Your task to perform on an android device: Open ESPN.com Image 0: 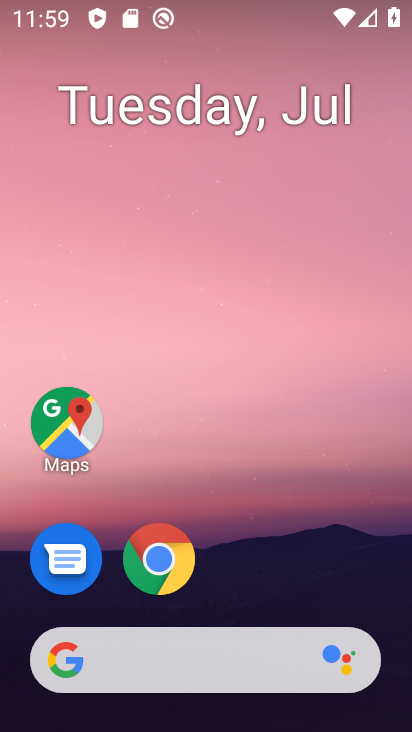
Step 0: click (163, 542)
Your task to perform on an android device: Open ESPN.com Image 1: 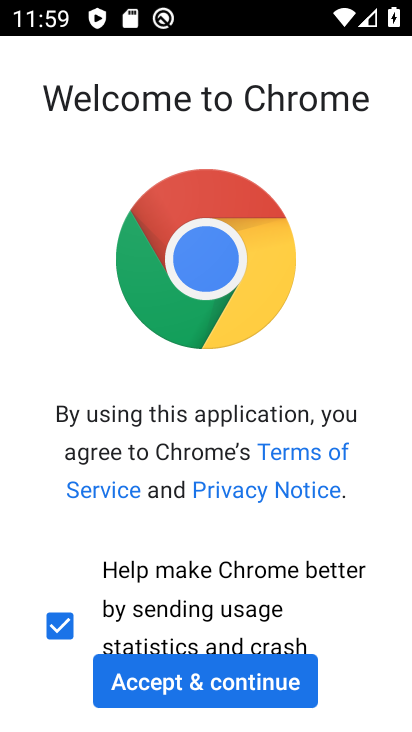
Step 1: click (202, 688)
Your task to perform on an android device: Open ESPN.com Image 2: 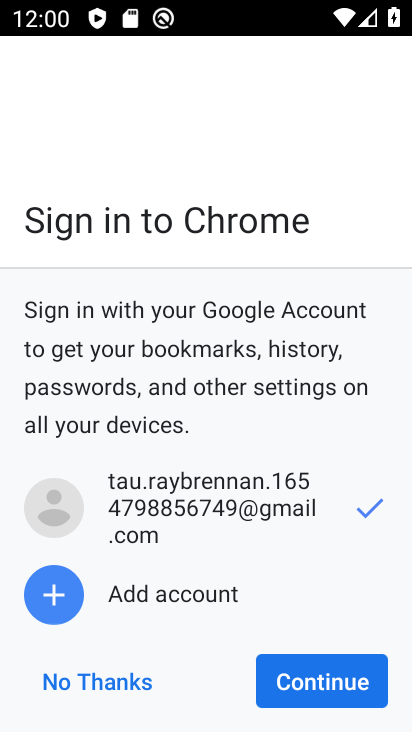
Step 2: click (342, 677)
Your task to perform on an android device: Open ESPN.com Image 3: 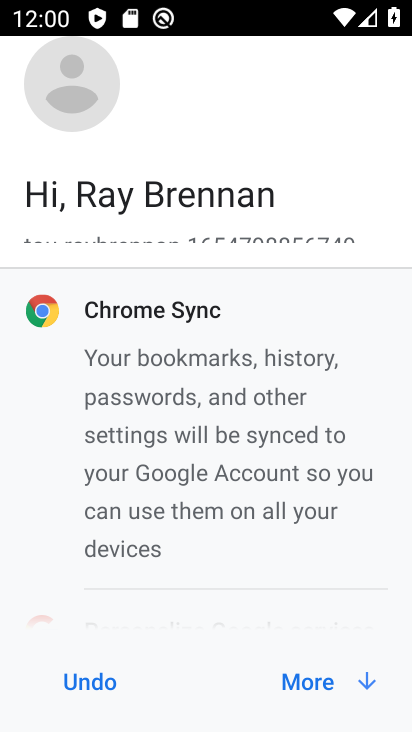
Step 3: click (338, 682)
Your task to perform on an android device: Open ESPN.com Image 4: 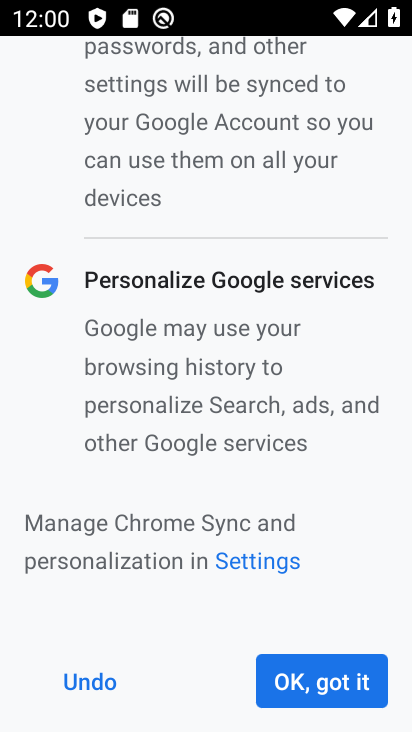
Step 4: click (315, 681)
Your task to perform on an android device: Open ESPN.com Image 5: 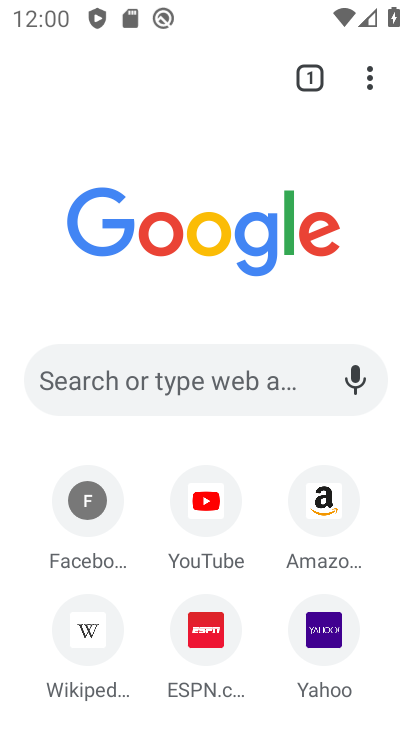
Step 5: click (212, 674)
Your task to perform on an android device: Open ESPN.com Image 6: 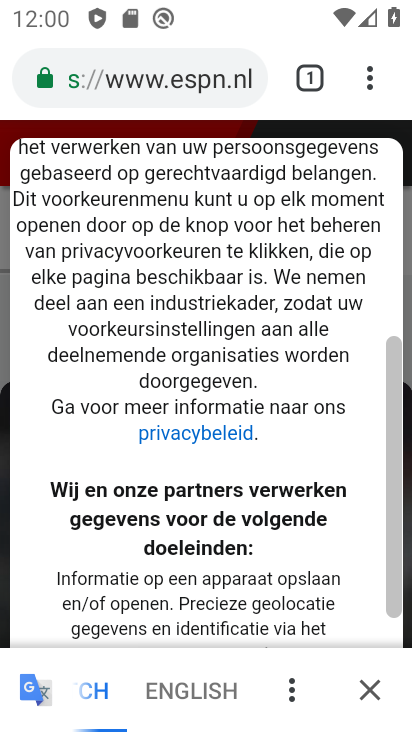
Step 6: task complete